Your task to perform on an android device: change your default location settings in chrome Image 0: 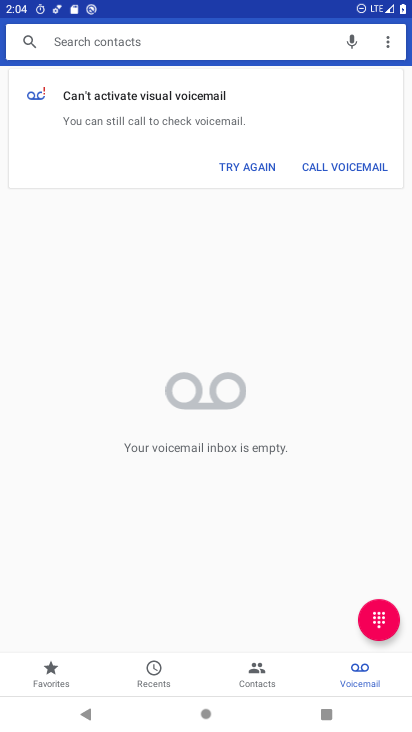
Step 0: press home button
Your task to perform on an android device: change your default location settings in chrome Image 1: 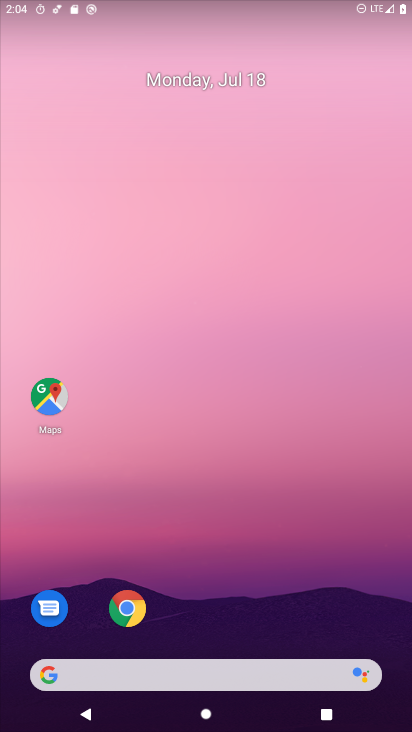
Step 1: click (123, 603)
Your task to perform on an android device: change your default location settings in chrome Image 2: 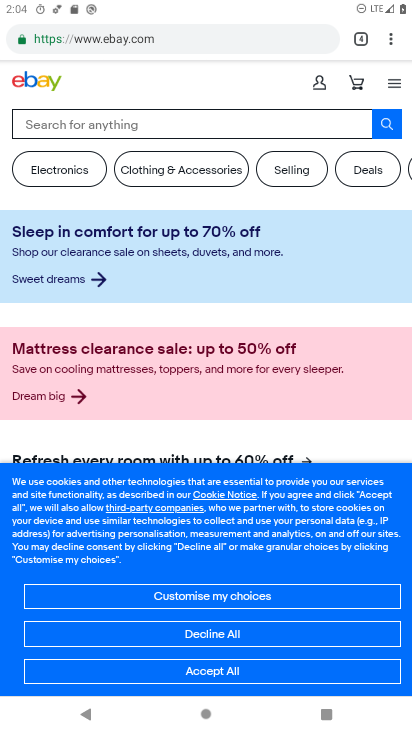
Step 2: click (389, 46)
Your task to perform on an android device: change your default location settings in chrome Image 3: 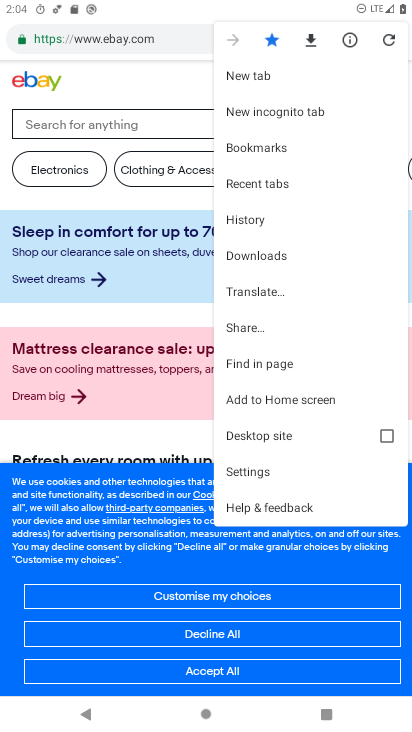
Step 3: click (255, 473)
Your task to perform on an android device: change your default location settings in chrome Image 4: 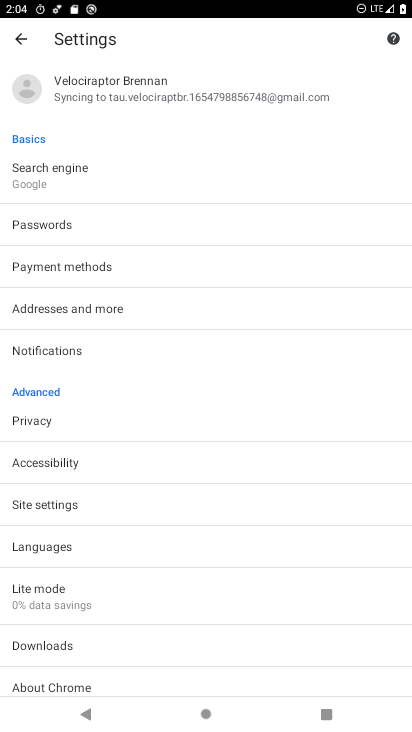
Step 4: click (50, 504)
Your task to perform on an android device: change your default location settings in chrome Image 5: 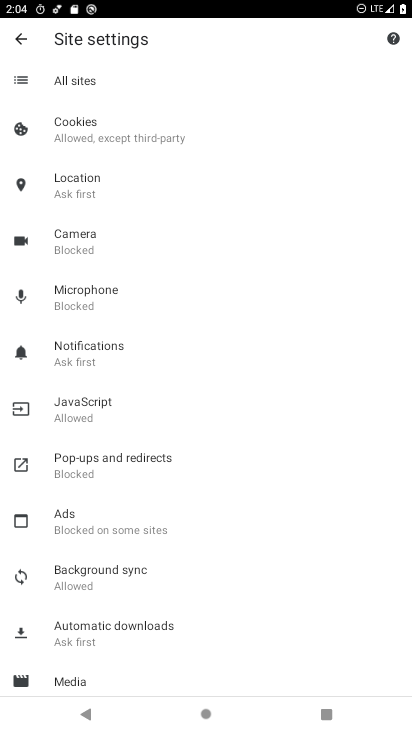
Step 5: click (72, 188)
Your task to perform on an android device: change your default location settings in chrome Image 6: 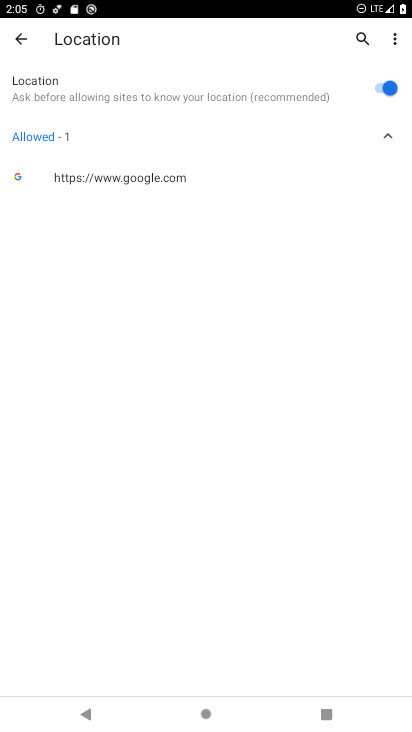
Step 6: click (375, 83)
Your task to perform on an android device: change your default location settings in chrome Image 7: 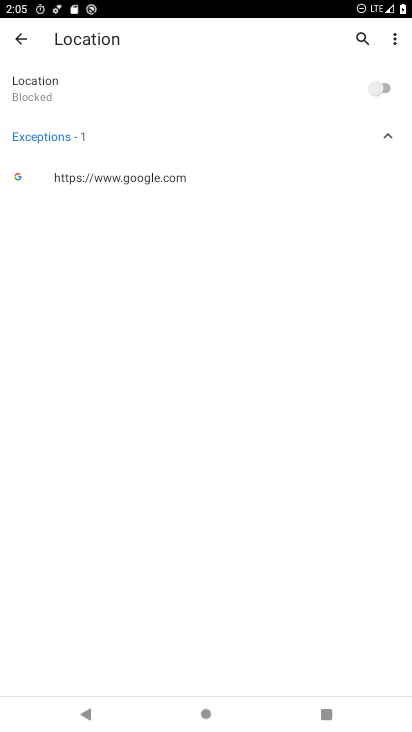
Step 7: task complete